Your task to perform on an android device: Empty the shopping cart on costco. Image 0: 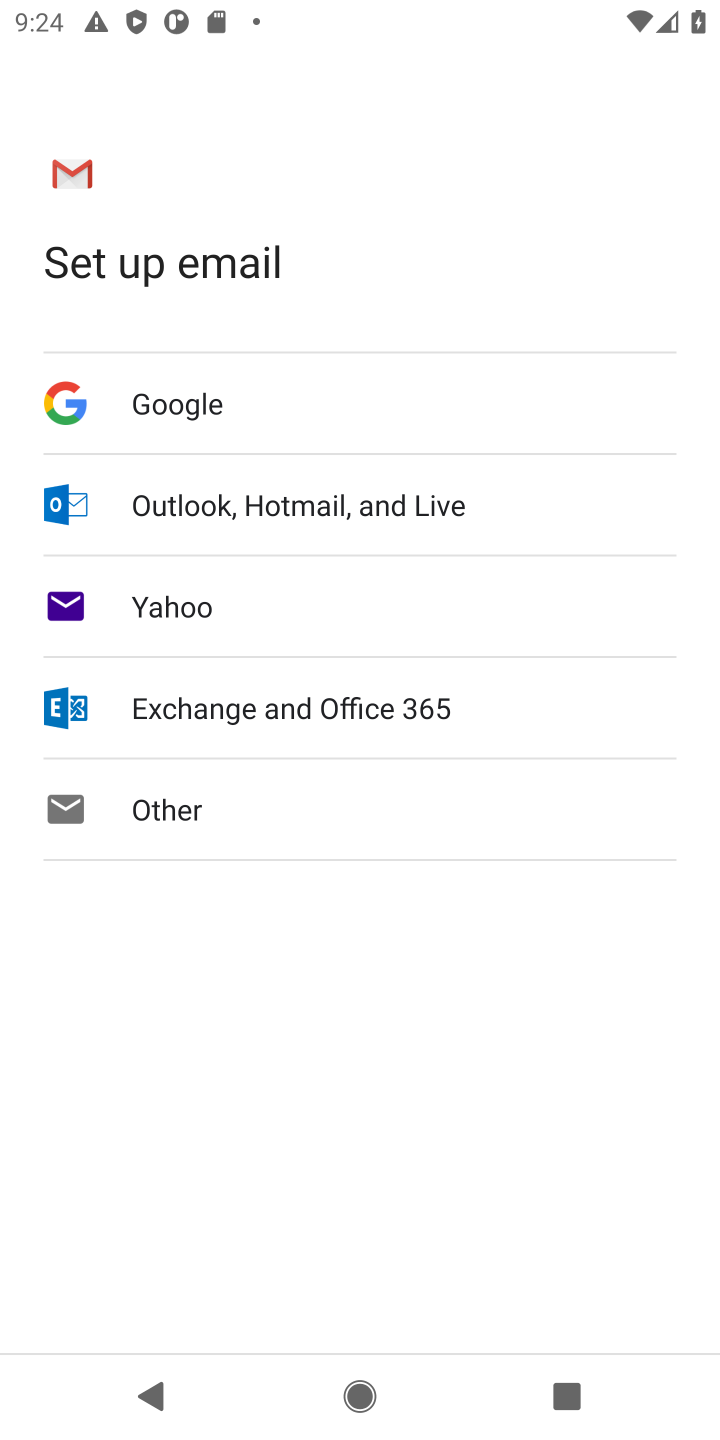
Step 0: press home button
Your task to perform on an android device: Empty the shopping cart on costco. Image 1: 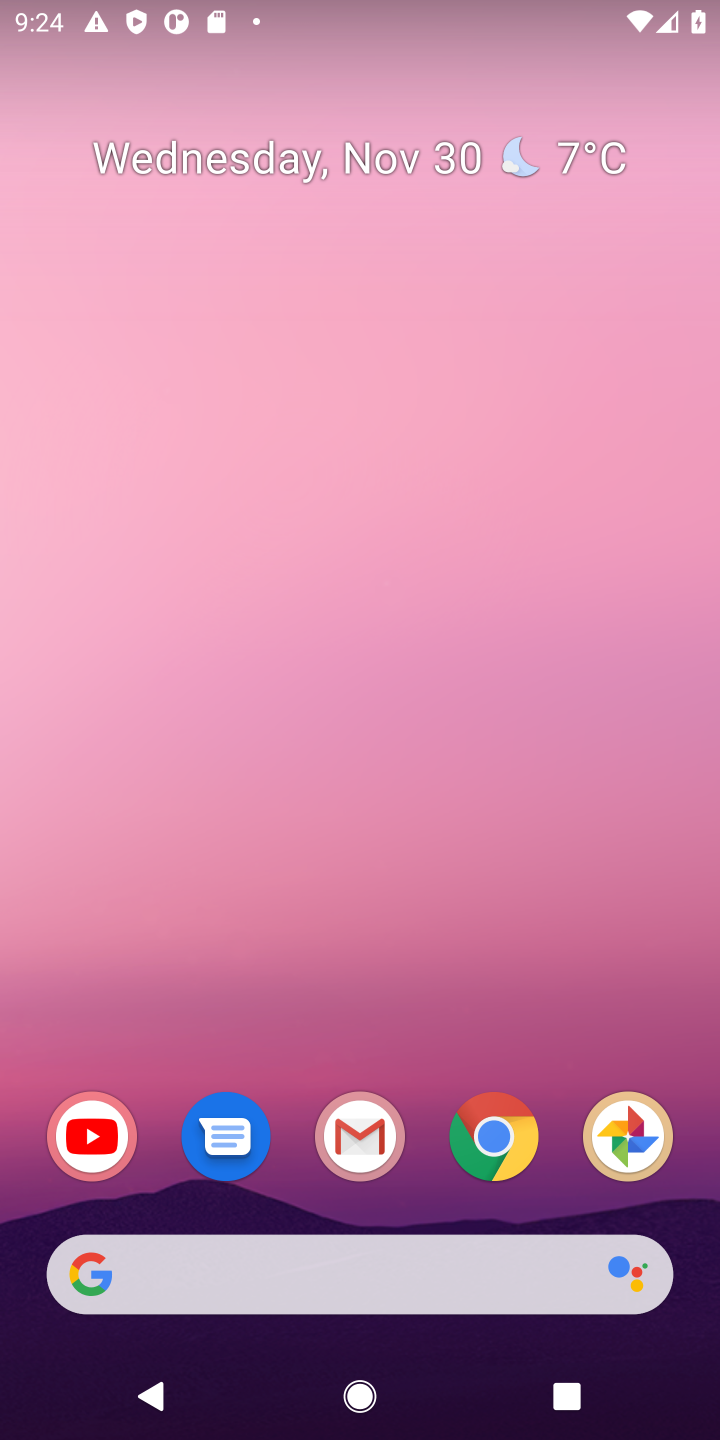
Step 1: click (503, 1138)
Your task to perform on an android device: Empty the shopping cart on costco. Image 2: 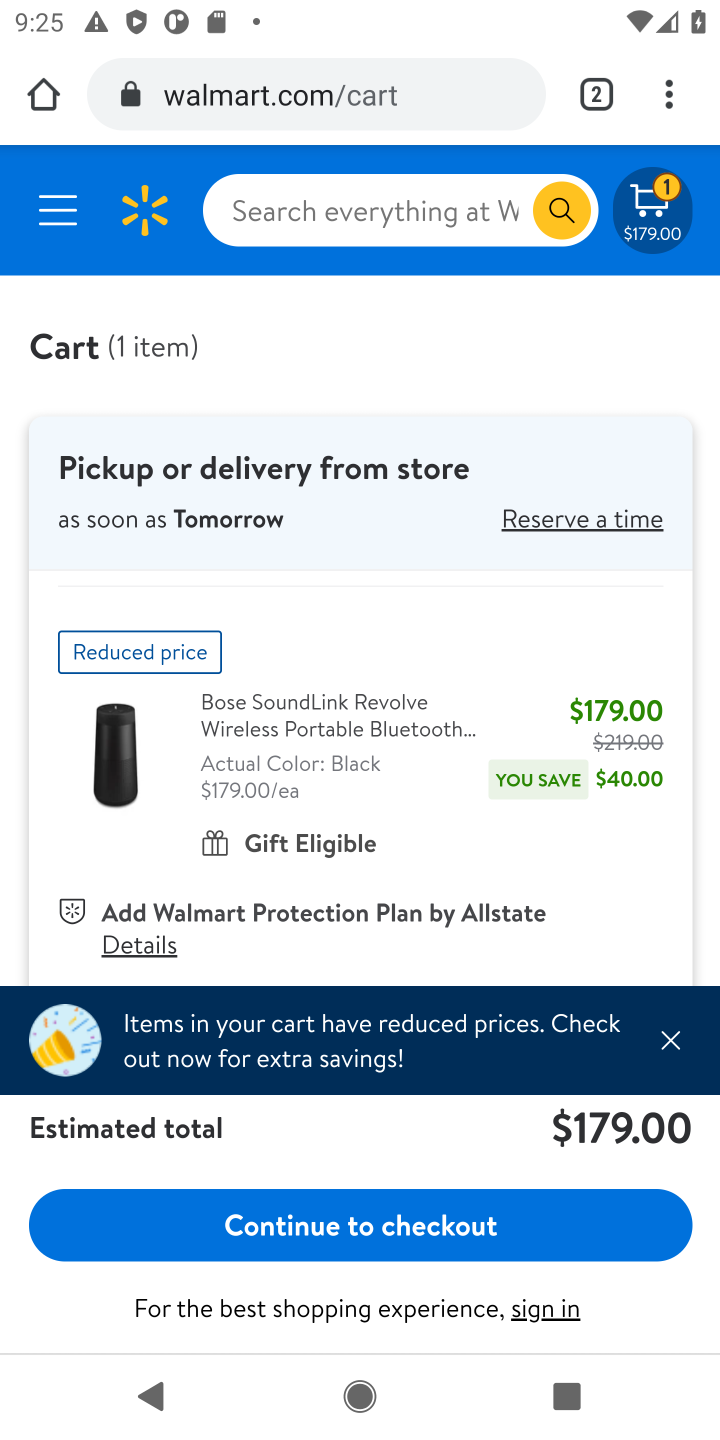
Step 2: click (262, 93)
Your task to perform on an android device: Empty the shopping cart on costco. Image 3: 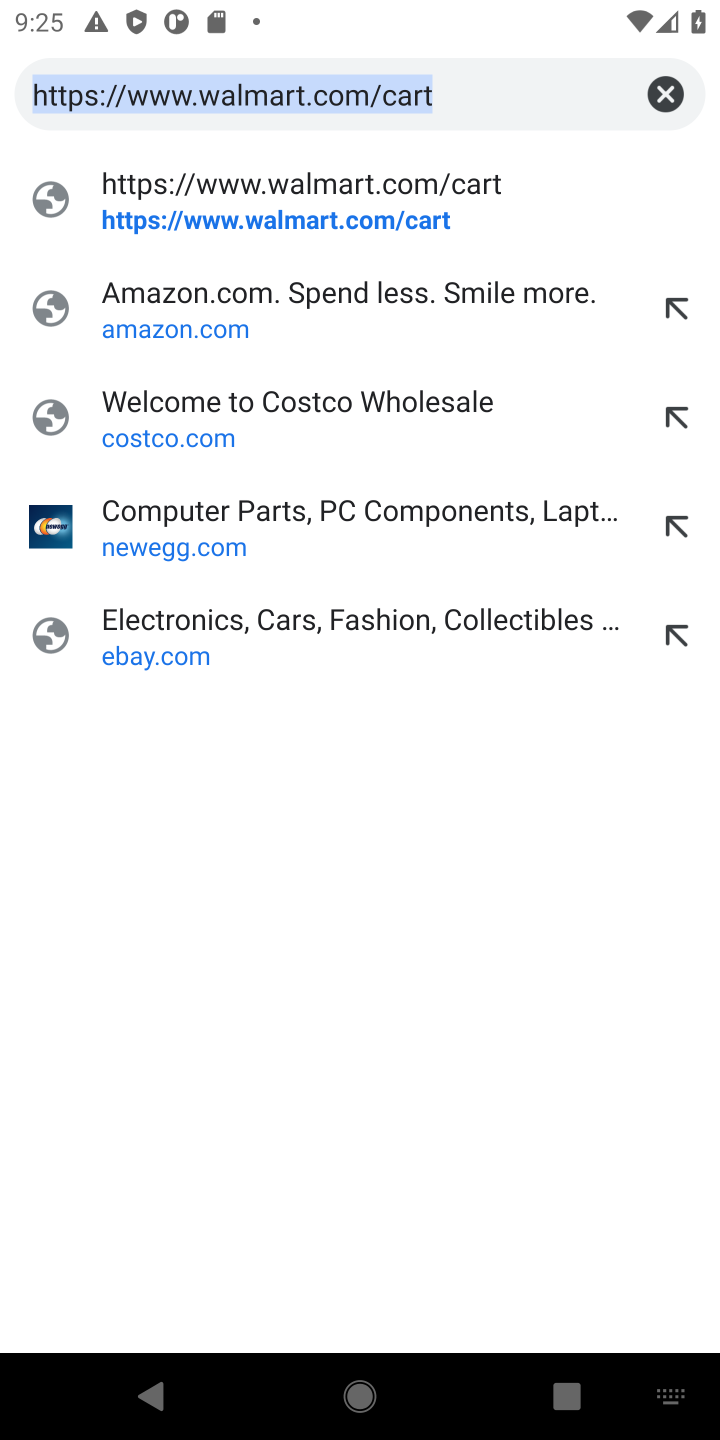
Step 3: click (177, 441)
Your task to perform on an android device: Empty the shopping cart on costco. Image 4: 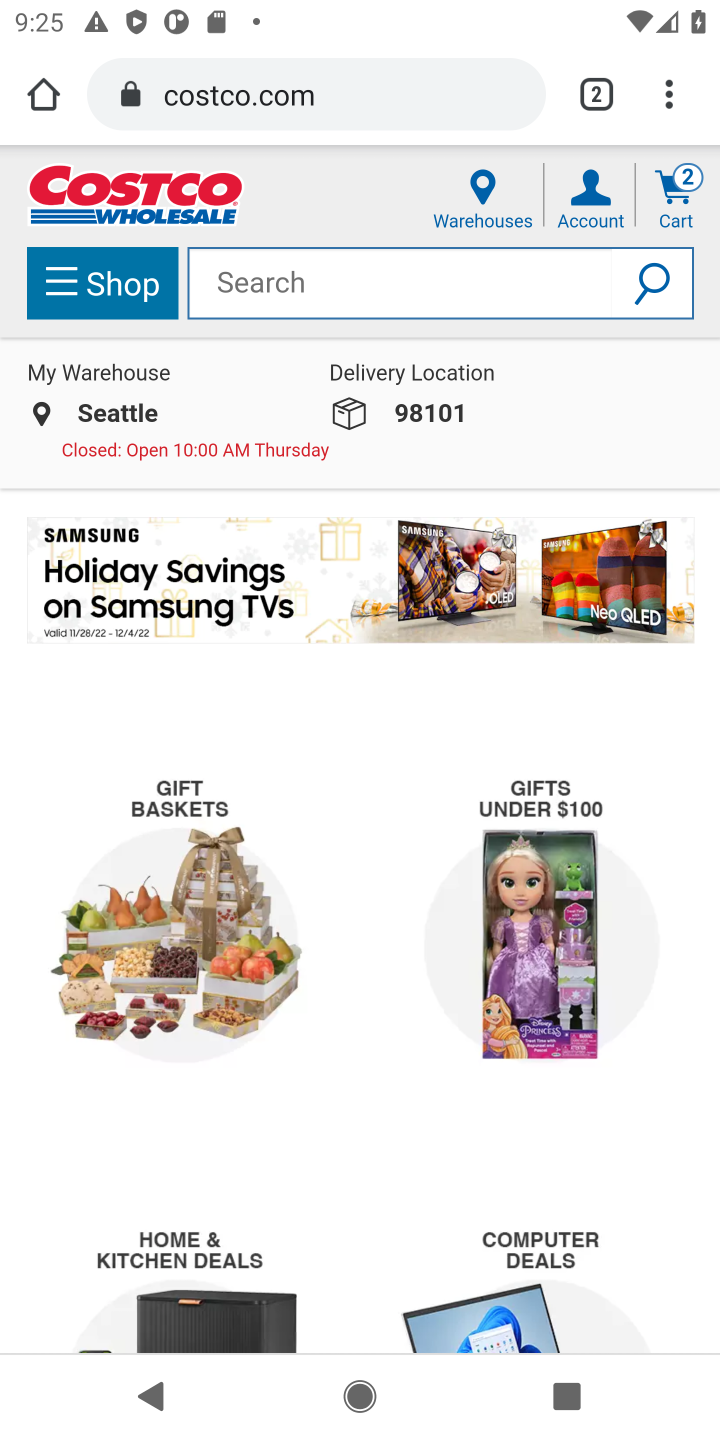
Step 4: click (681, 192)
Your task to perform on an android device: Empty the shopping cart on costco. Image 5: 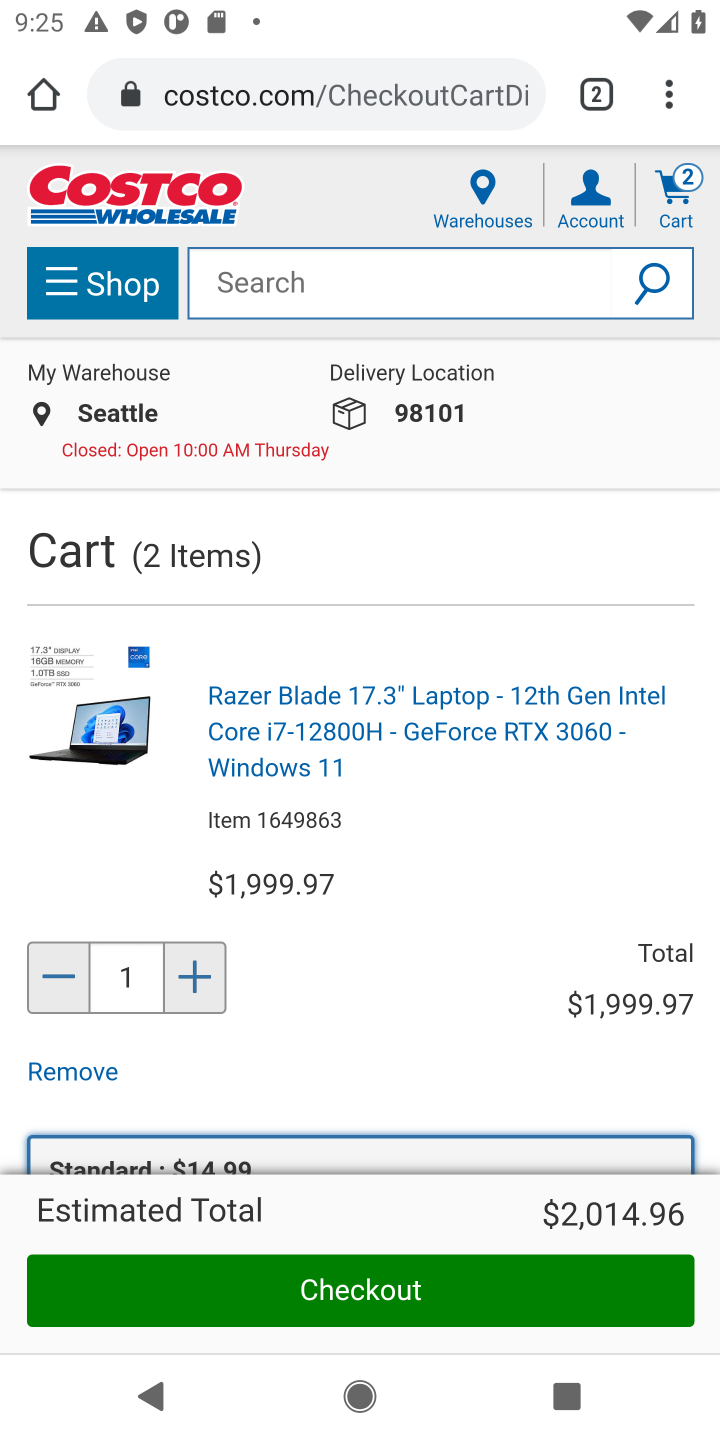
Step 5: drag from (324, 970) to (222, 357)
Your task to perform on an android device: Empty the shopping cart on costco. Image 6: 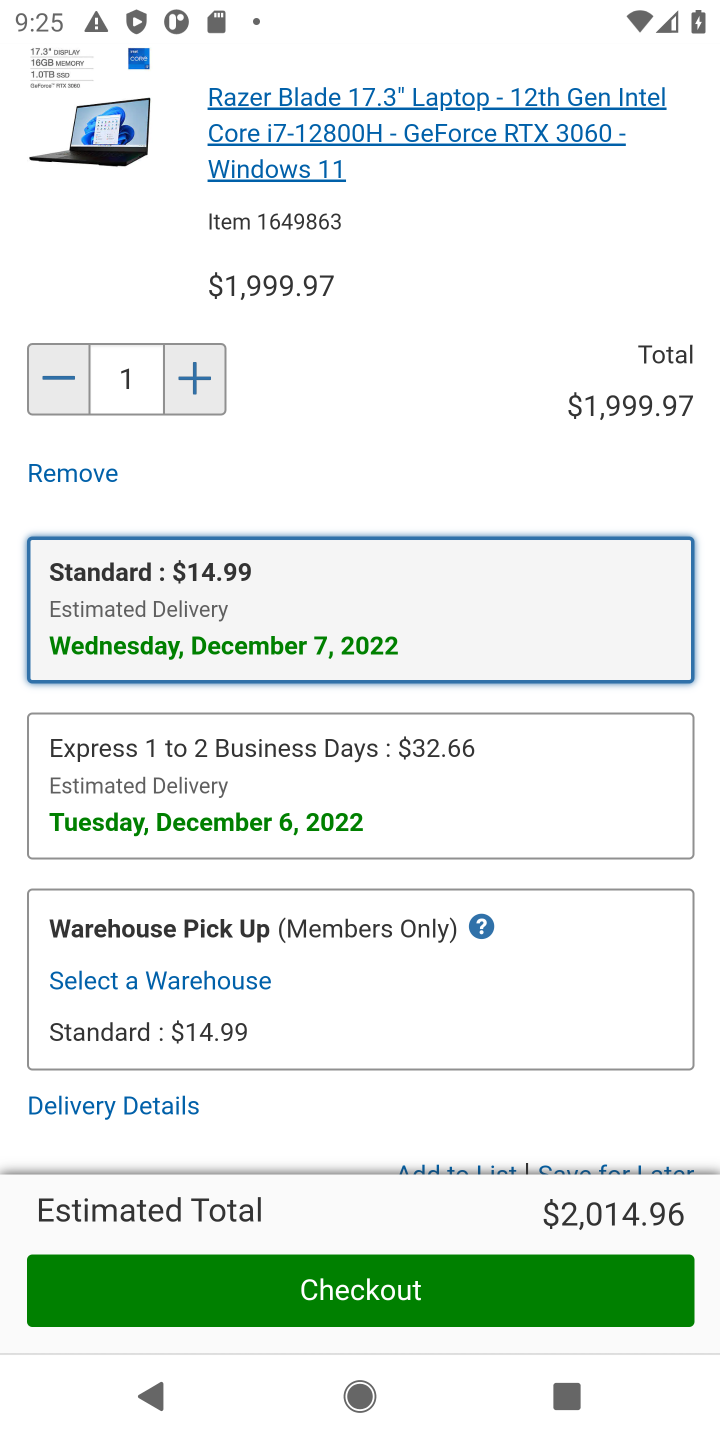
Step 6: drag from (303, 845) to (276, 293)
Your task to perform on an android device: Empty the shopping cart on costco. Image 7: 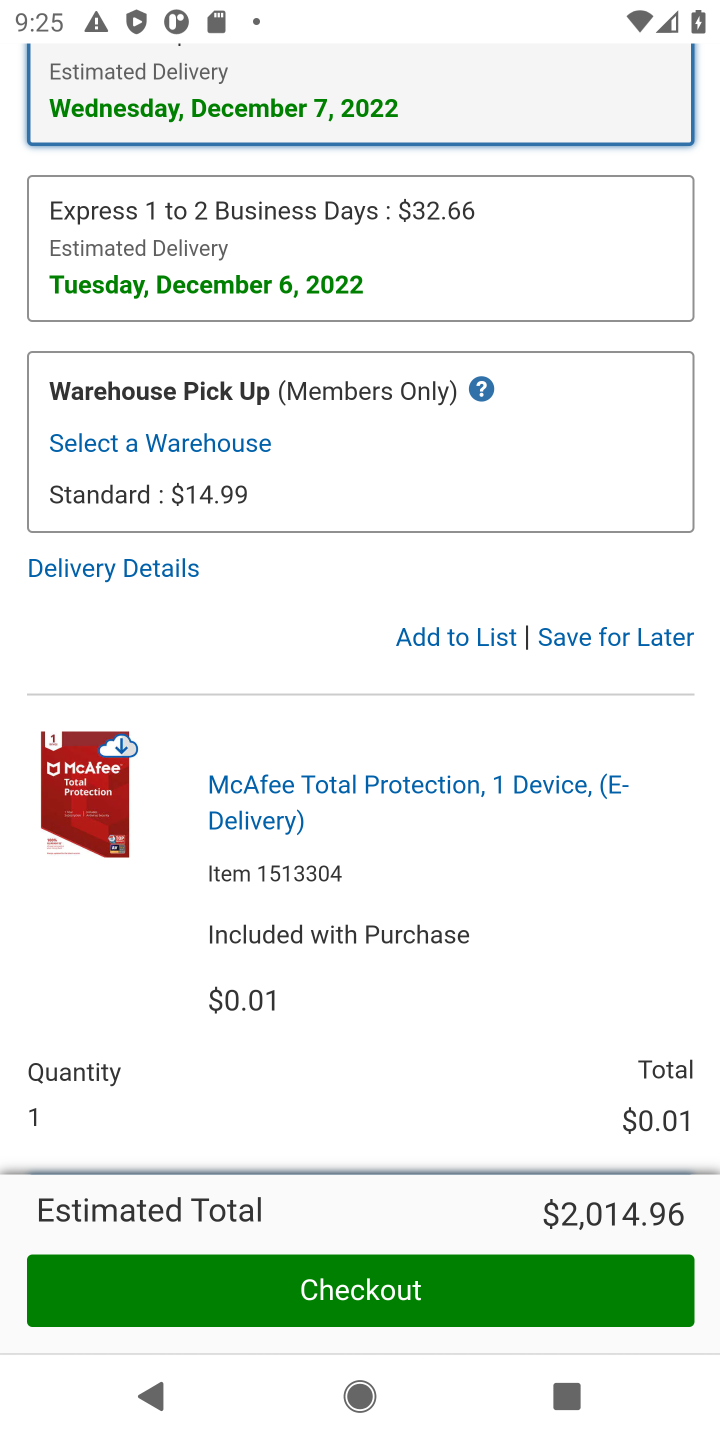
Step 7: click (589, 642)
Your task to perform on an android device: Empty the shopping cart on costco. Image 8: 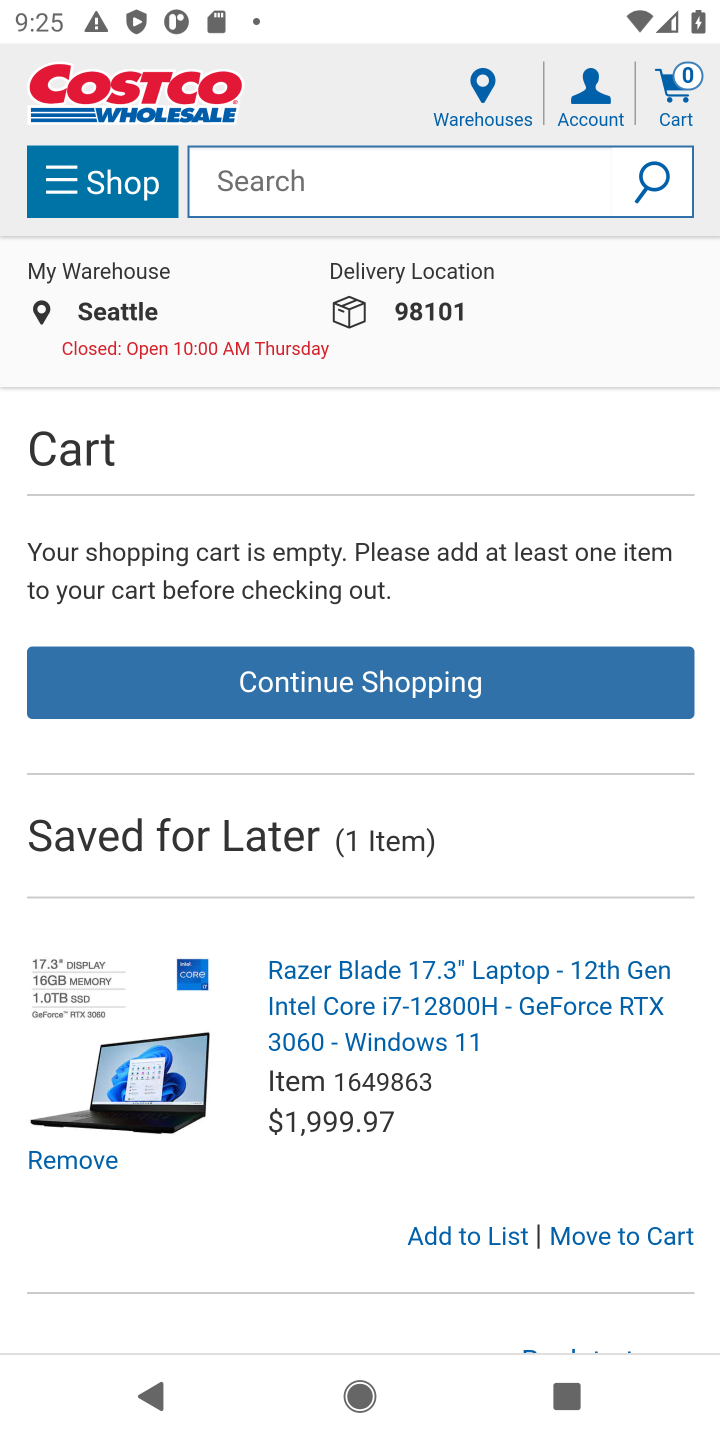
Step 8: task complete